Your task to perform on an android device: Show me productivity apps on the Play Store Image 0: 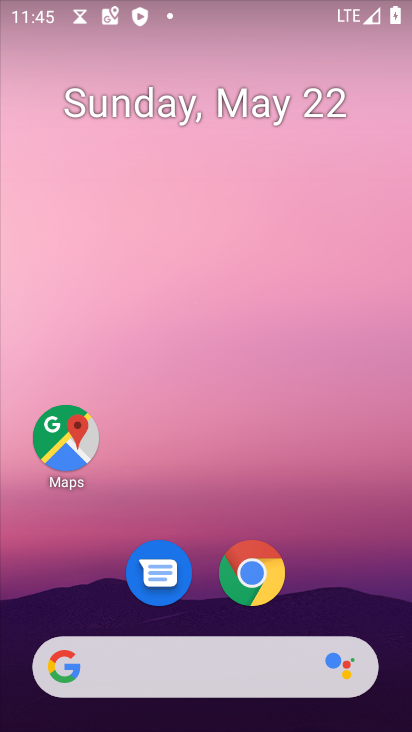
Step 0: drag from (239, 634) to (355, 178)
Your task to perform on an android device: Show me productivity apps on the Play Store Image 1: 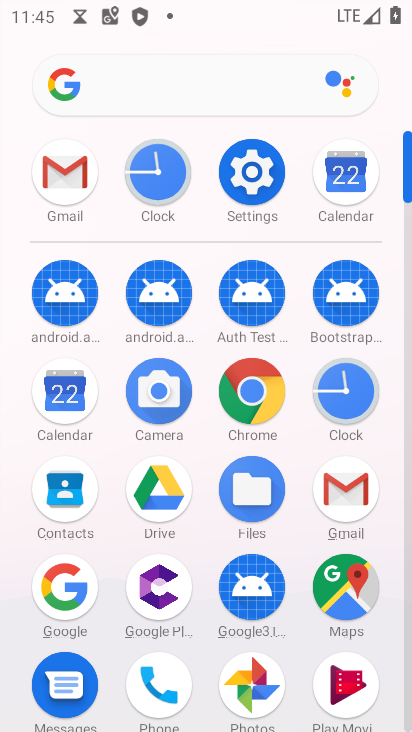
Step 1: drag from (126, 611) to (342, 104)
Your task to perform on an android device: Show me productivity apps on the Play Store Image 2: 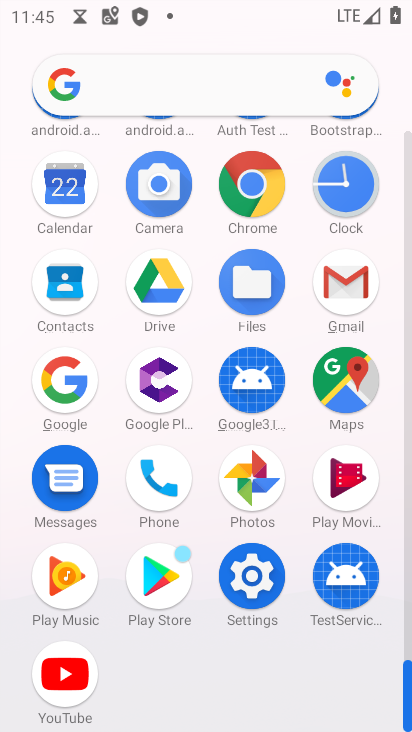
Step 2: click (169, 583)
Your task to perform on an android device: Show me productivity apps on the Play Store Image 3: 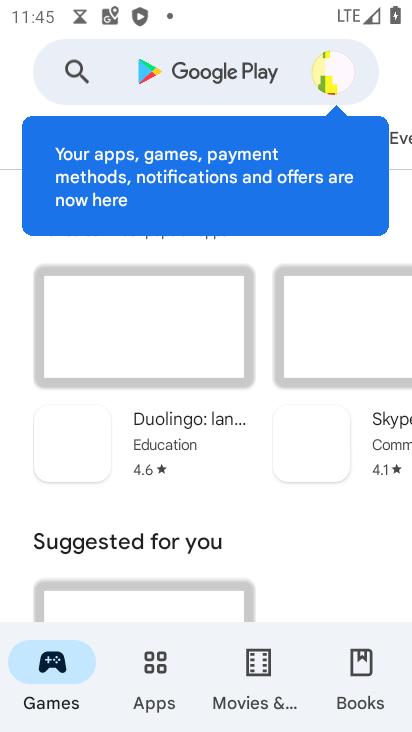
Step 3: click (156, 699)
Your task to perform on an android device: Show me productivity apps on the Play Store Image 4: 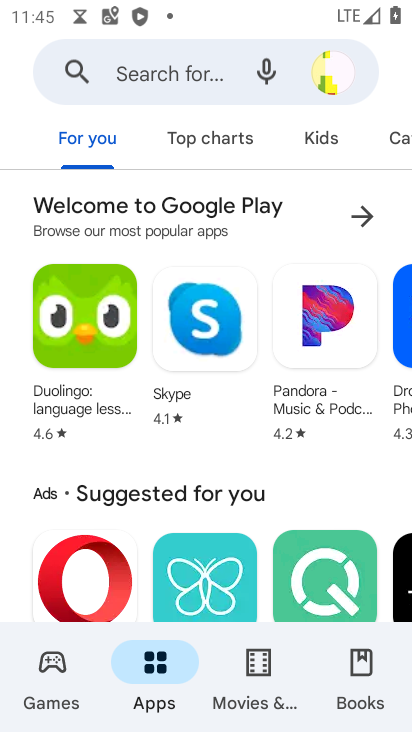
Step 4: click (401, 142)
Your task to perform on an android device: Show me productivity apps on the Play Store Image 5: 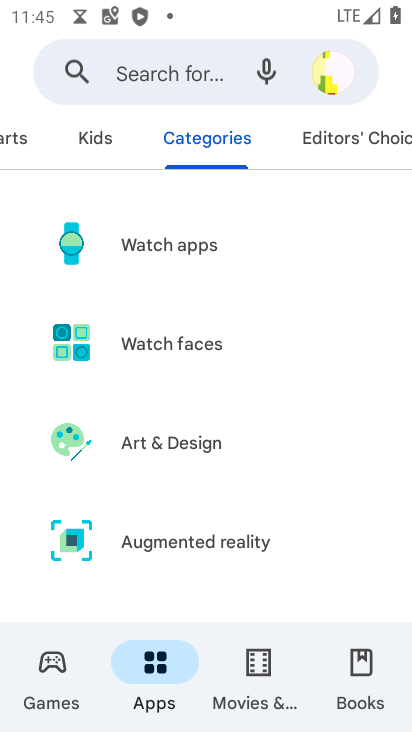
Step 5: drag from (238, 563) to (396, 62)
Your task to perform on an android device: Show me productivity apps on the Play Store Image 6: 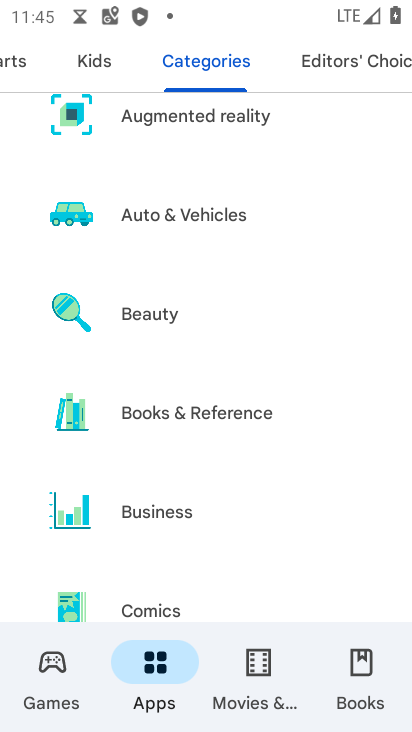
Step 6: drag from (271, 550) to (359, 179)
Your task to perform on an android device: Show me productivity apps on the Play Store Image 7: 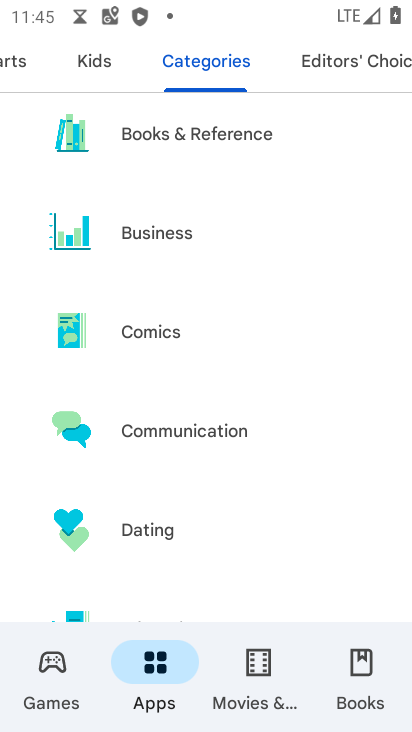
Step 7: drag from (247, 527) to (365, 171)
Your task to perform on an android device: Show me productivity apps on the Play Store Image 8: 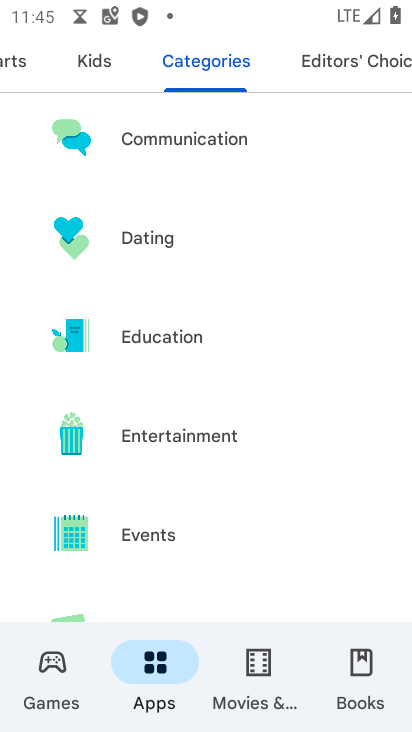
Step 8: drag from (251, 527) to (357, 184)
Your task to perform on an android device: Show me productivity apps on the Play Store Image 9: 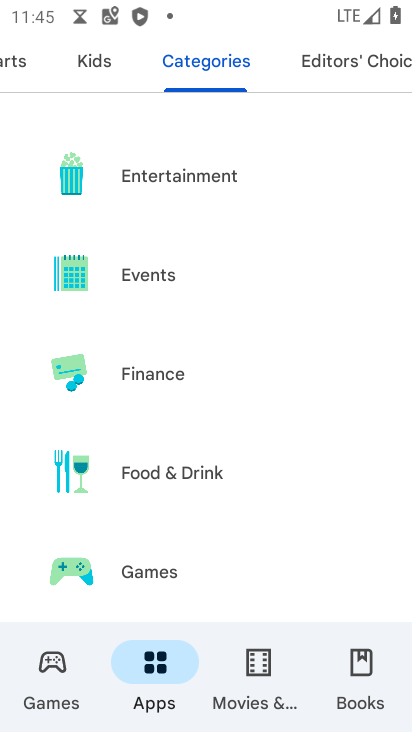
Step 9: drag from (256, 527) to (396, 95)
Your task to perform on an android device: Show me productivity apps on the Play Store Image 10: 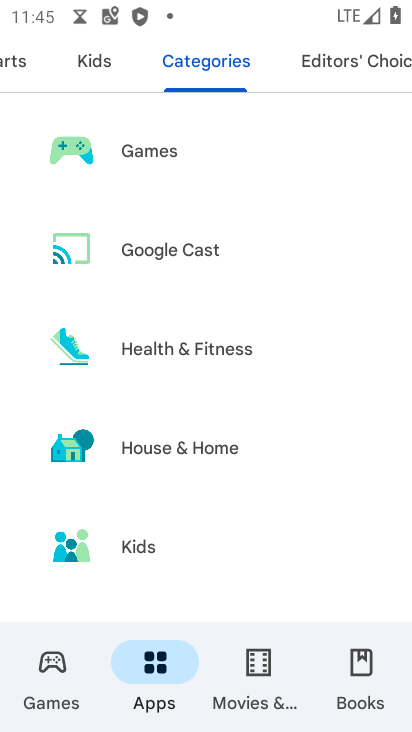
Step 10: drag from (240, 573) to (359, 191)
Your task to perform on an android device: Show me productivity apps on the Play Store Image 11: 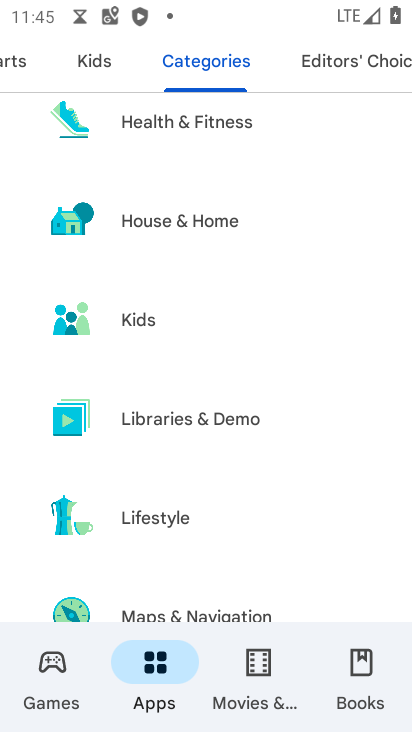
Step 11: drag from (245, 568) to (360, 212)
Your task to perform on an android device: Show me productivity apps on the Play Store Image 12: 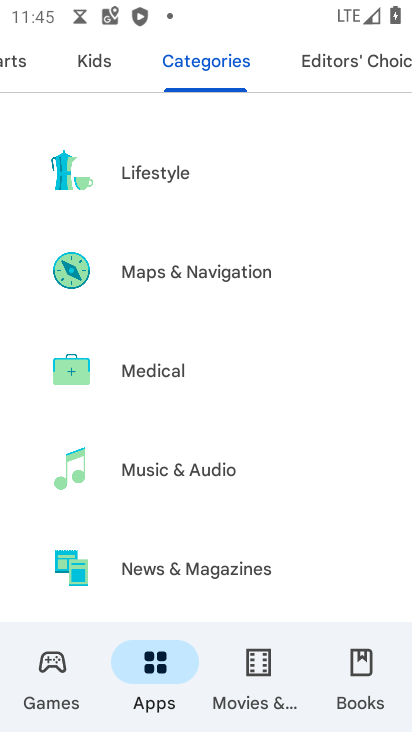
Step 12: drag from (272, 549) to (397, 138)
Your task to perform on an android device: Show me productivity apps on the Play Store Image 13: 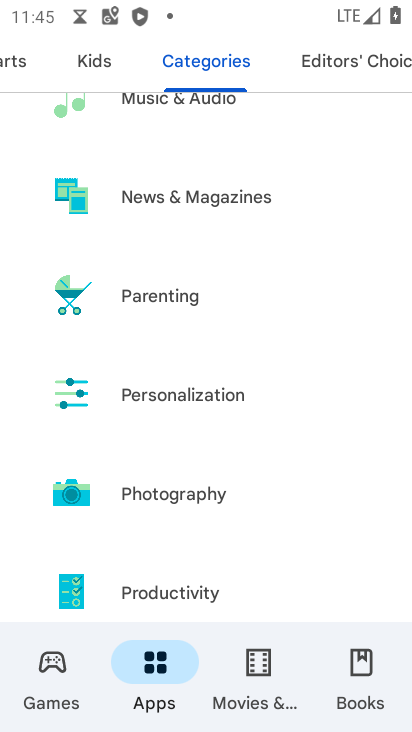
Step 13: drag from (268, 565) to (351, 230)
Your task to perform on an android device: Show me productivity apps on the Play Store Image 14: 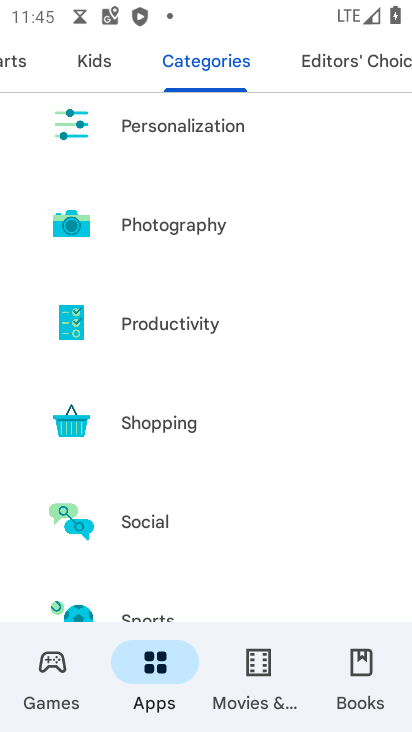
Step 14: click (196, 319)
Your task to perform on an android device: Show me productivity apps on the Play Store Image 15: 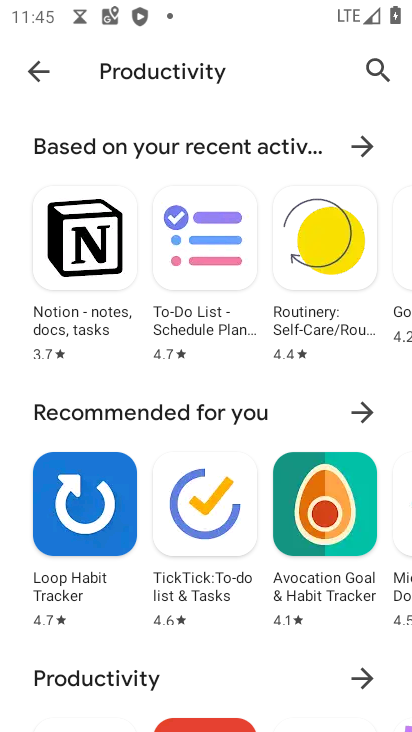
Step 15: task complete